Your task to perform on an android device: Open Google Chrome and open the bookmarks view Image 0: 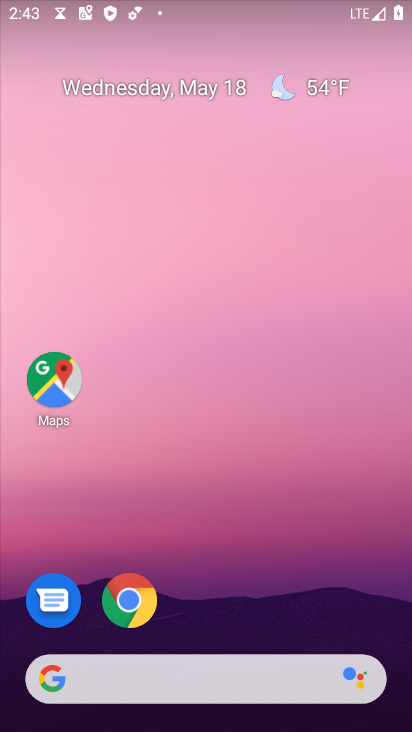
Step 0: press home button
Your task to perform on an android device: Open Google Chrome and open the bookmarks view Image 1: 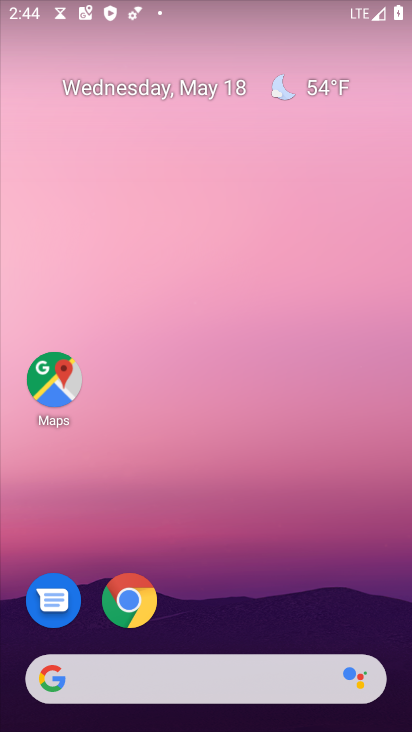
Step 1: click (138, 593)
Your task to perform on an android device: Open Google Chrome and open the bookmarks view Image 2: 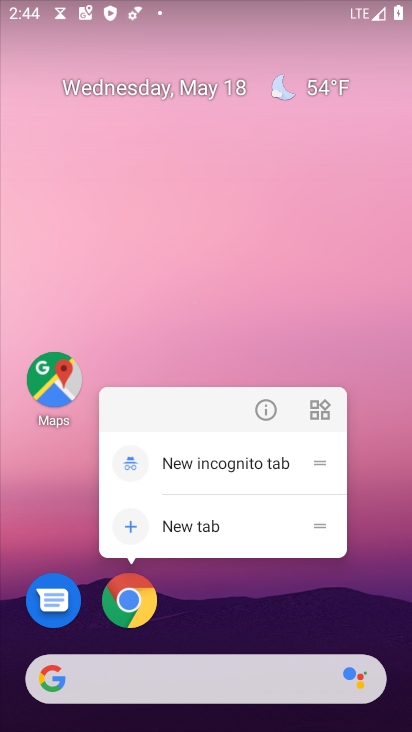
Step 2: click (126, 615)
Your task to perform on an android device: Open Google Chrome and open the bookmarks view Image 3: 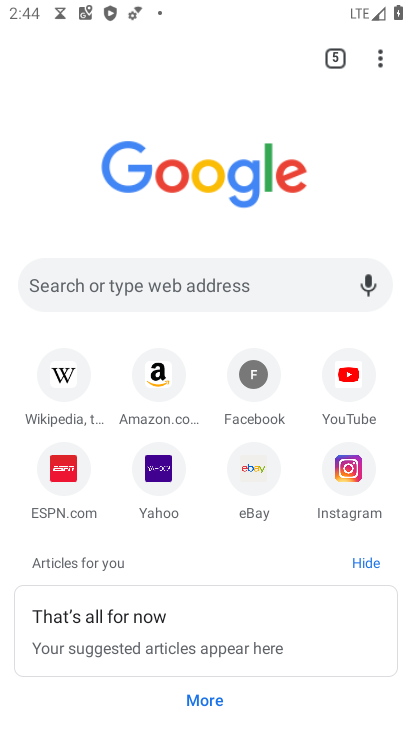
Step 3: task complete